Your task to perform on an android device: turn on sleep mode Image 0: 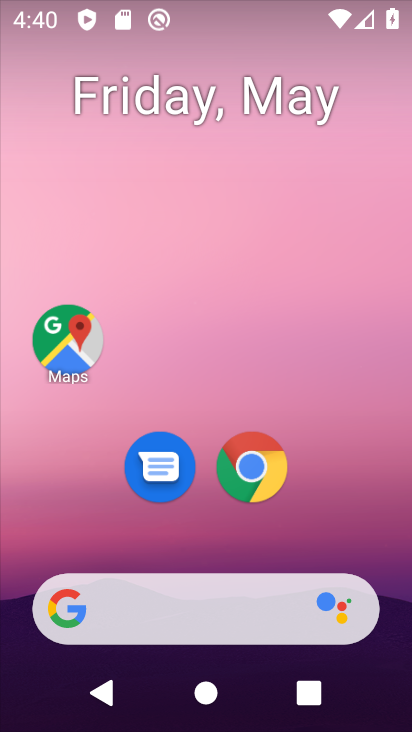
Step 0: drag from (335, 531) to (375, 50)
Your task to perform on an android device: turn on sleep mode Image 1: 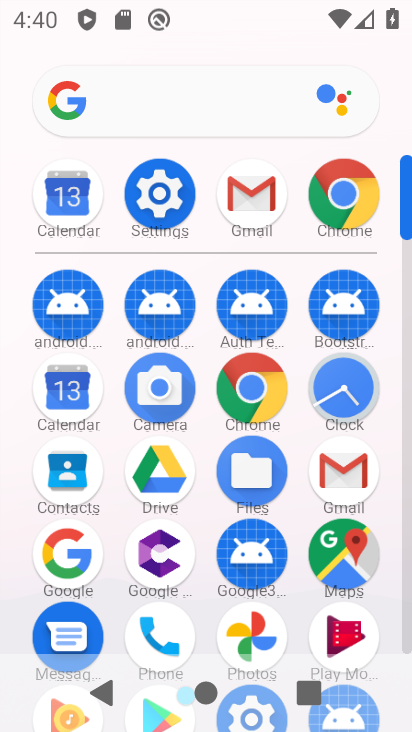
Step 1: click (168, 181)
Your task to perform on an android device: turn on sleep mode Image 2: 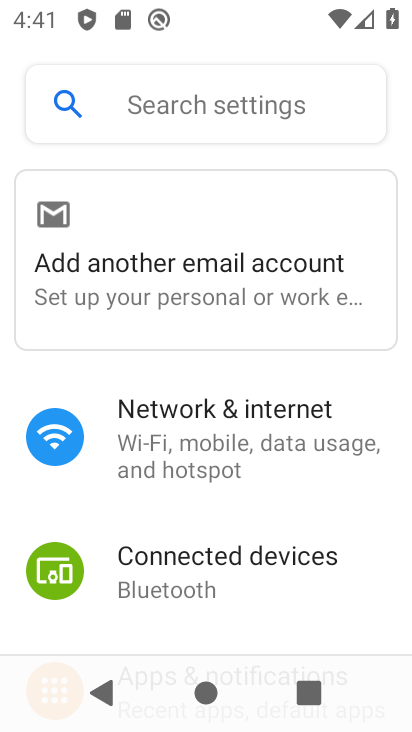
Step 2: drag from (187, 600) to (355, 141)
Your task to perform on an android device: turn on sleep mode Image 3: 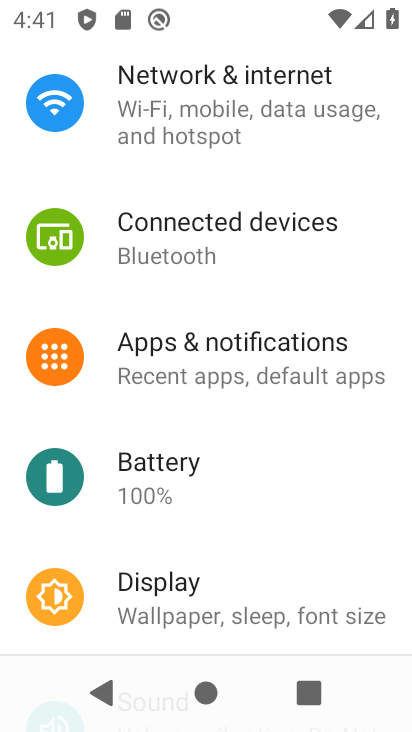
Step 3: drag from (157, 570) to (330, 251)
Your task to perform on an android device: turn on sleep mode Image 4: 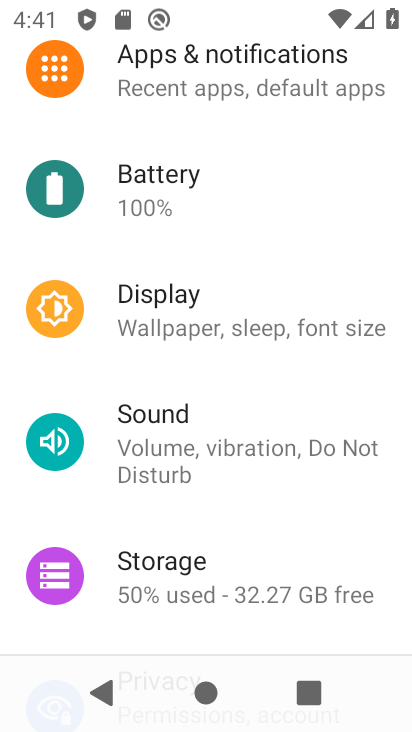
Step 4: click (227, 319)
Your task to perform on an android device: turn on sleep mode Image 5: 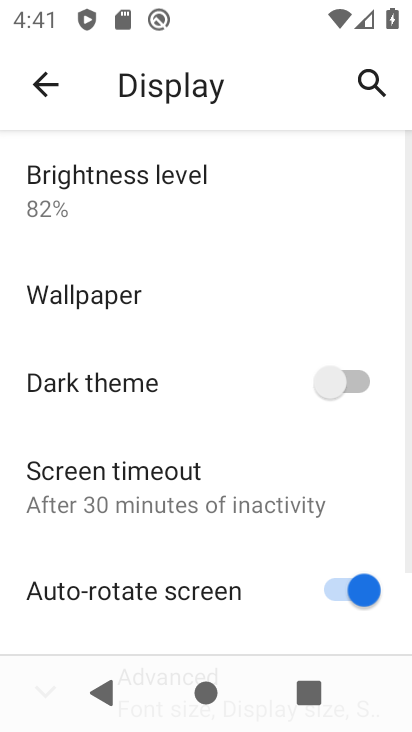
Step 5: click (137, 496)
Your task to perform on an android device: turn on sleep mode Image 6: 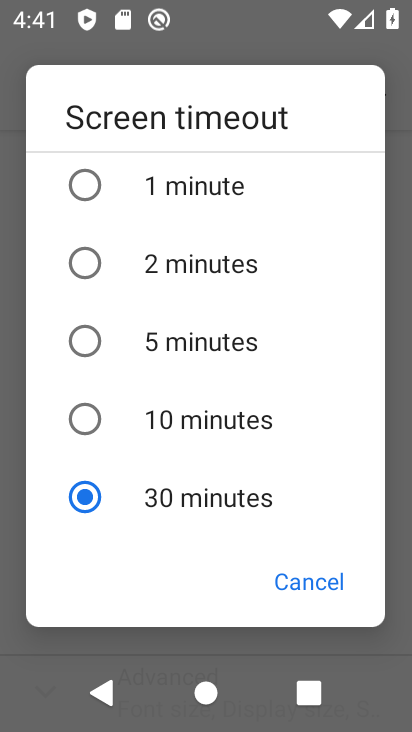
Step 6: task complete